Your task to perform on an android device: check android version Image 0: 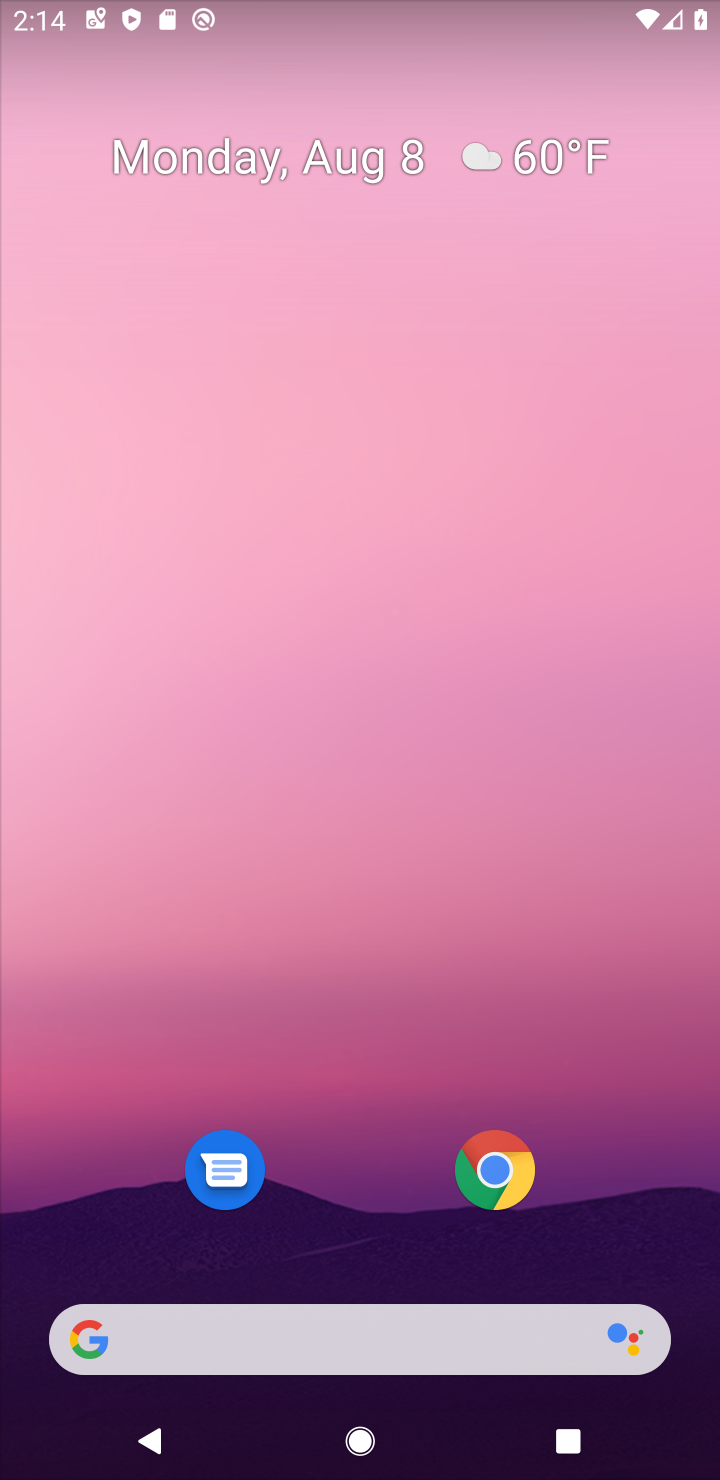
Step 0: drag from (350, 1128) to (330, 334)
Your task to perform on an android device: check android version Image 1: 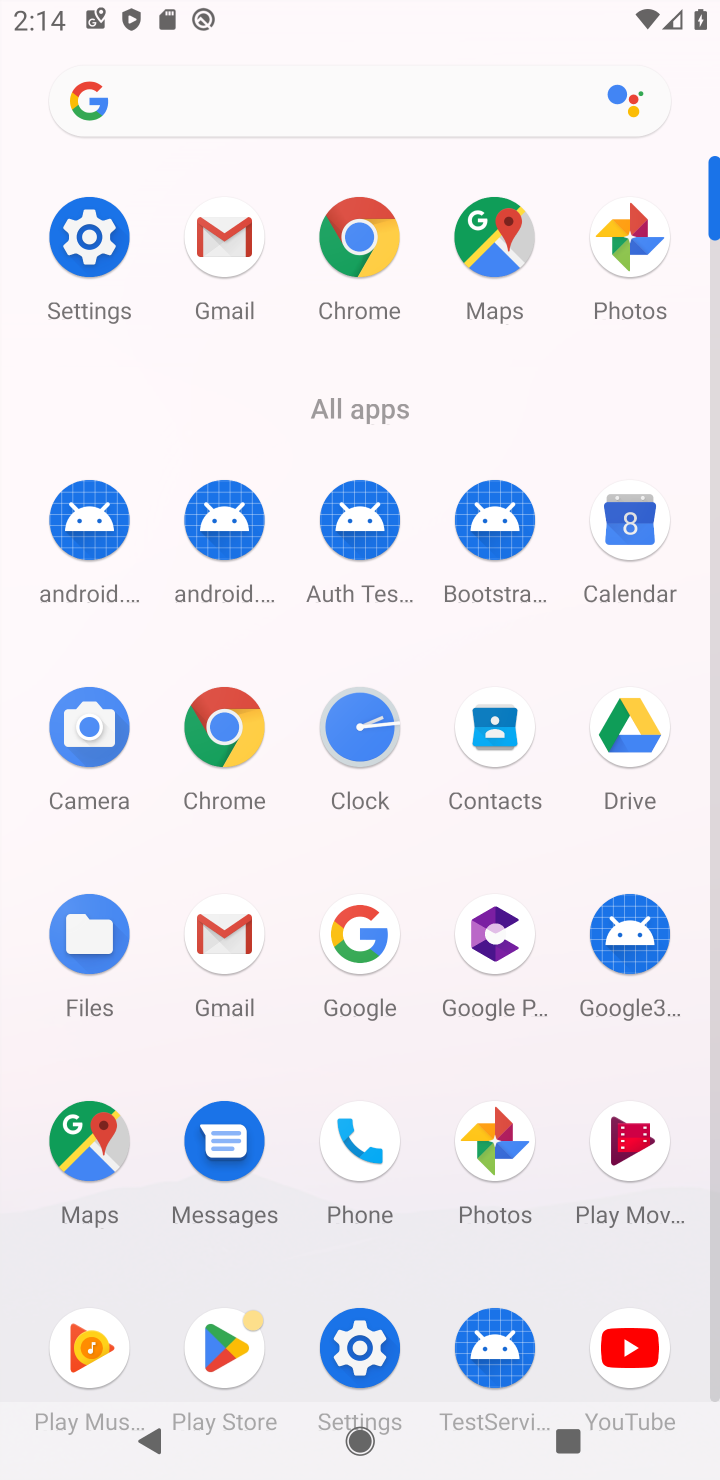
Step 1: click (84, 244)
Your task to perform on an android device: check android version Image 2: 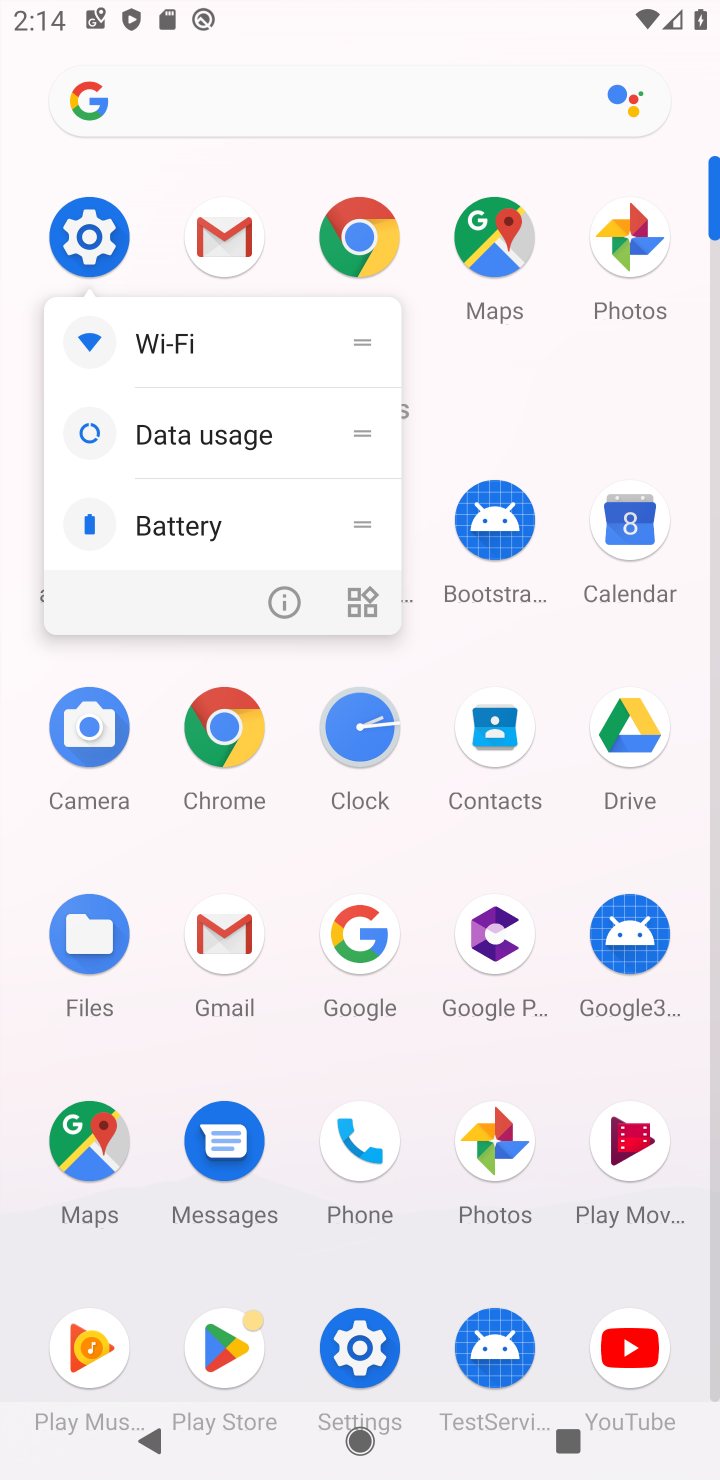
Step 2: click (84, 244)
Your task to perform on an android device: check android version Image 3: 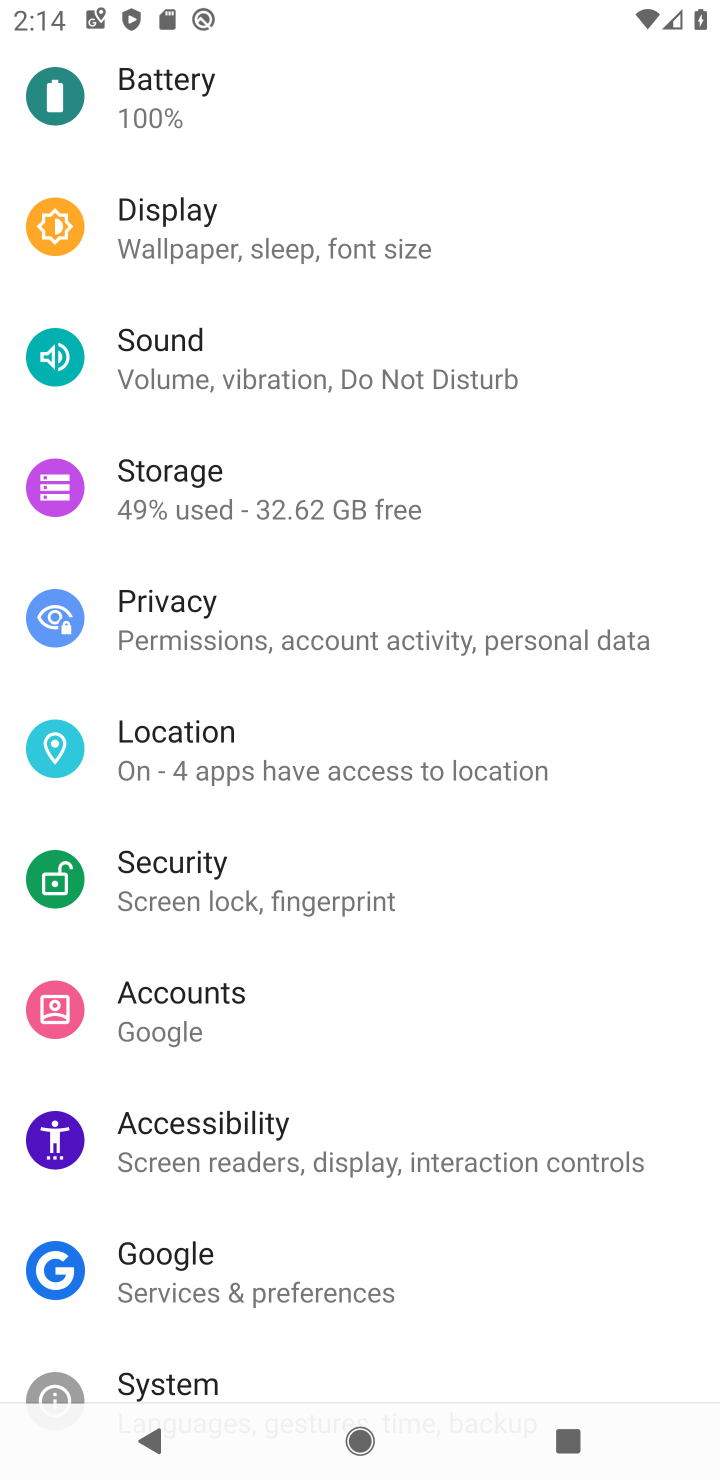
Step 3: drag from (345, 1179) to (345, 440)
Your task to perform on an android device: check android version Image 4: 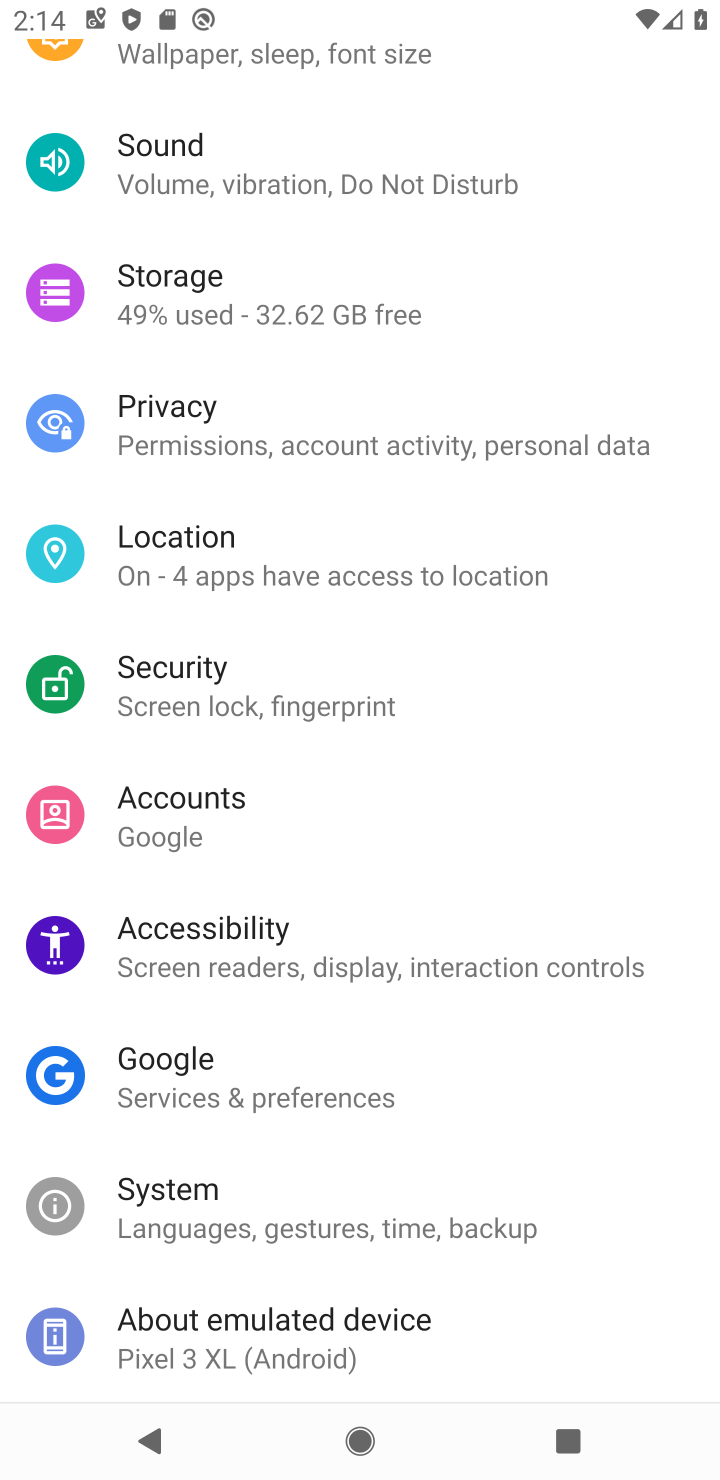
Step 4: click (294, 1309)
Your task to perform on an android device: check android version Image 5: 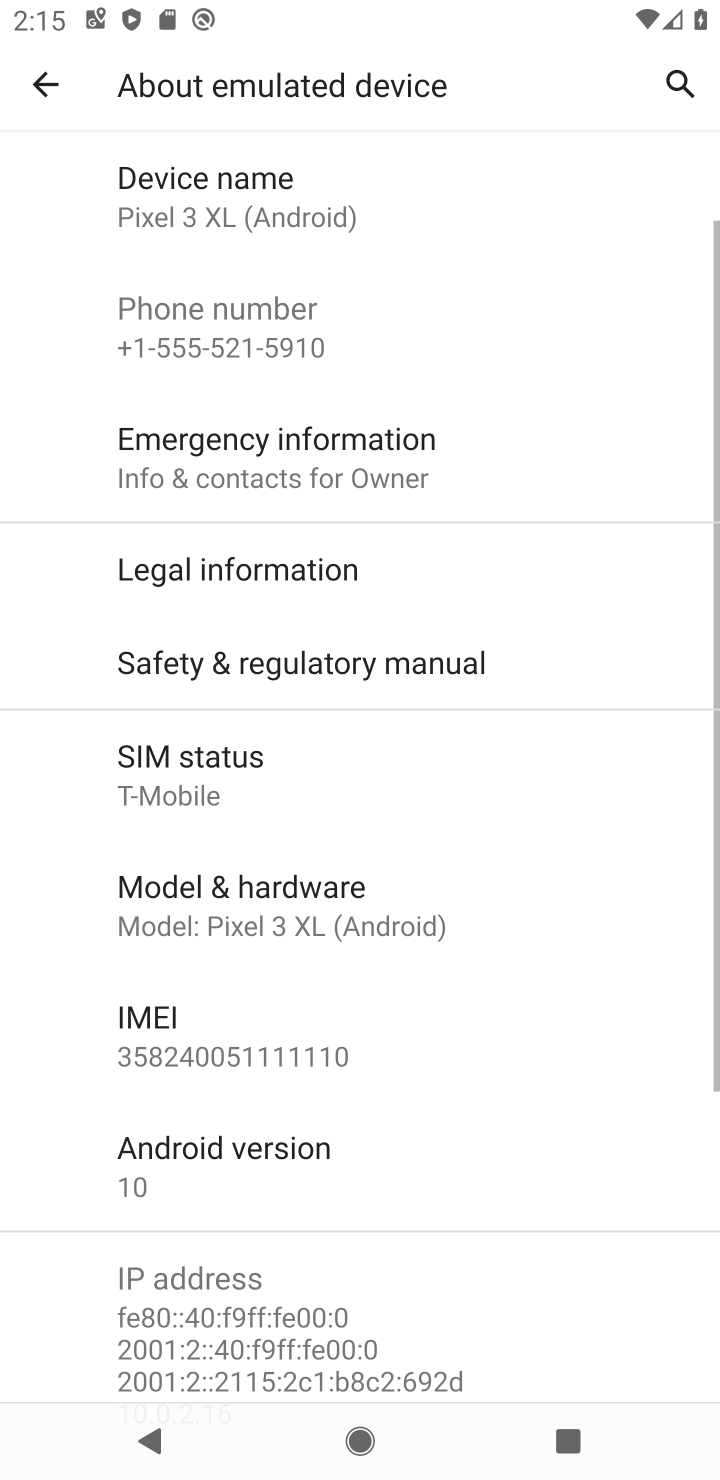
Step 5: click (361, 1157)
Your task to perform on an android device: check android version Image 6: 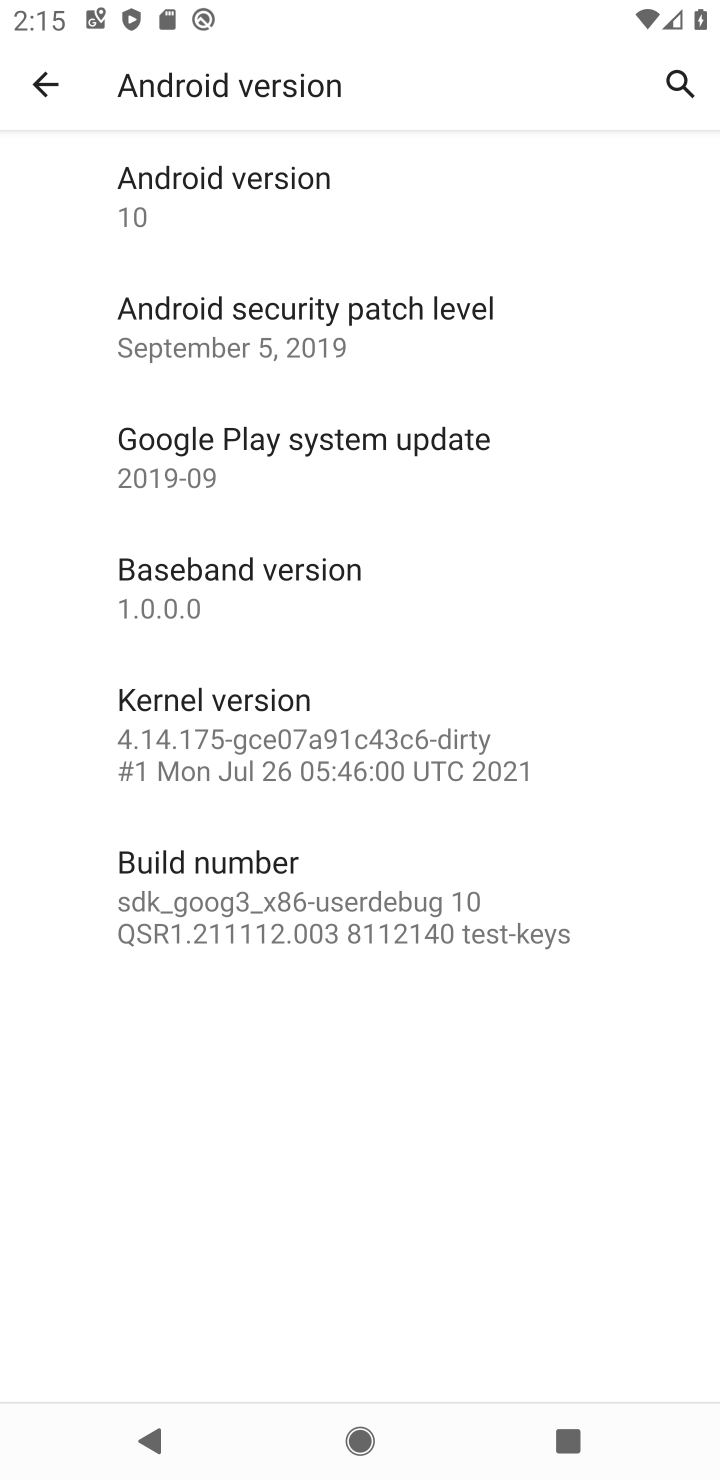
Step 6: click (309, 234)
Your task to perform on an android device: check android version Image 7: 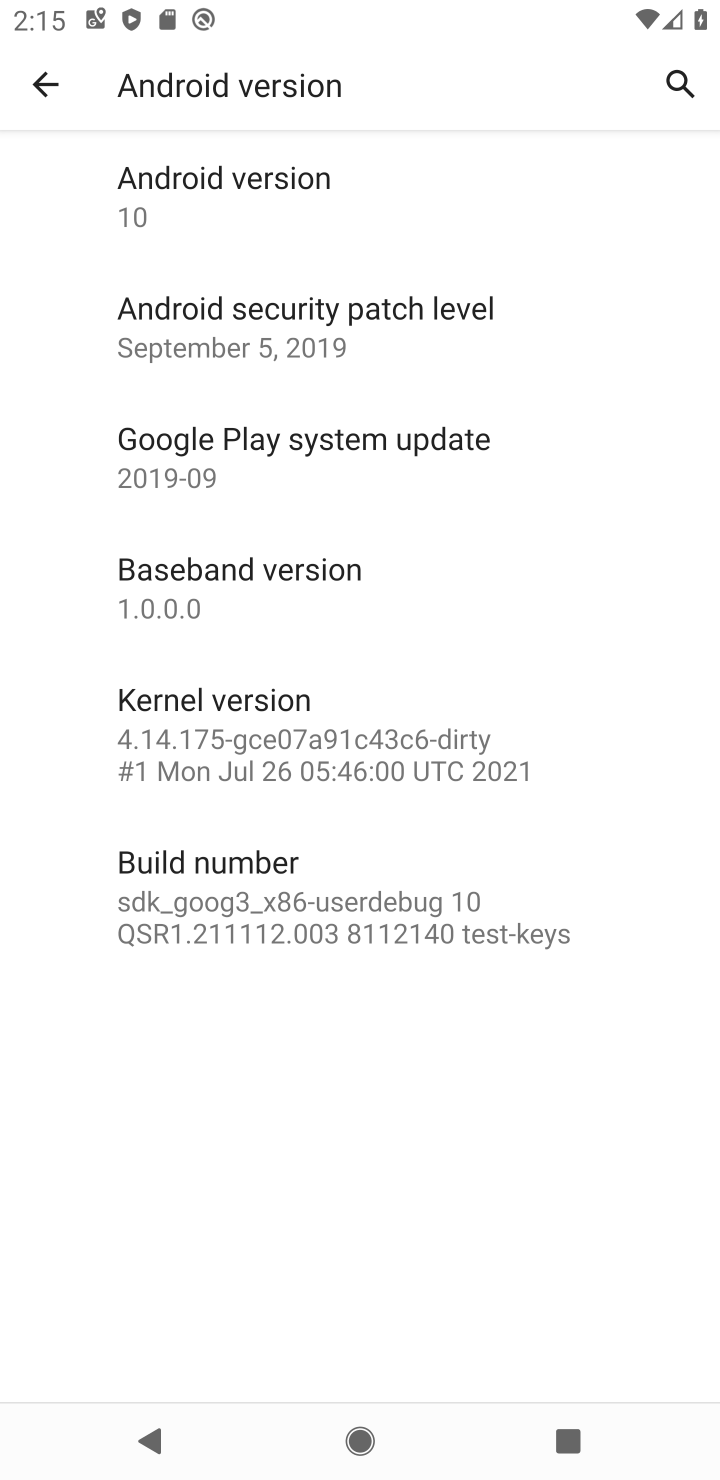
Step 7: task complete